Your task to perform on an android device: Open the map Image 0: 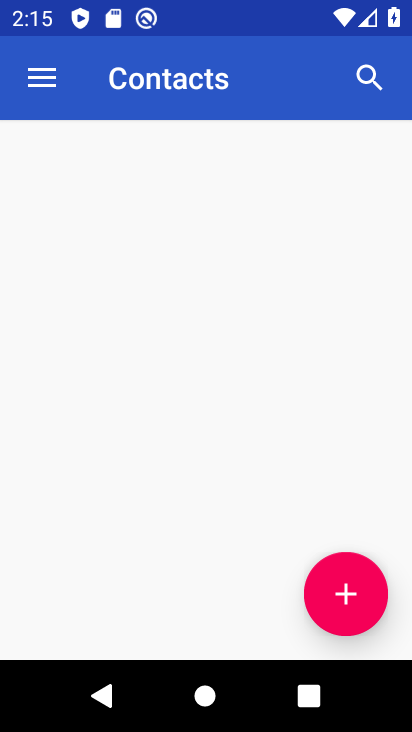
Step 0: drag from (314, 574) to (101, 154)
Your task to perform on an android device: Open the map Image 1: 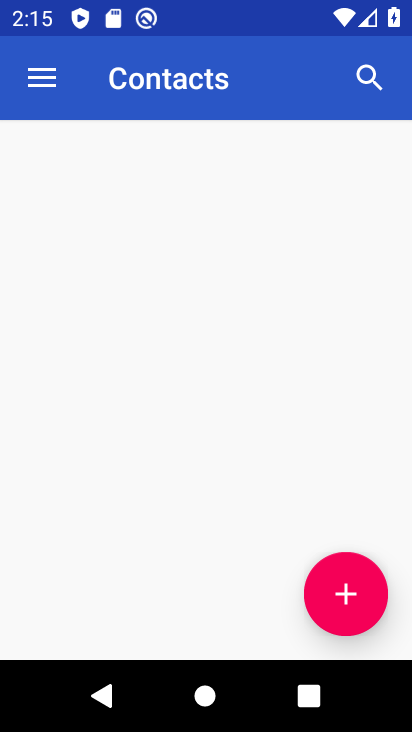
Step 1: press home button
Your task to perform on an android device: Open the map Image 2: 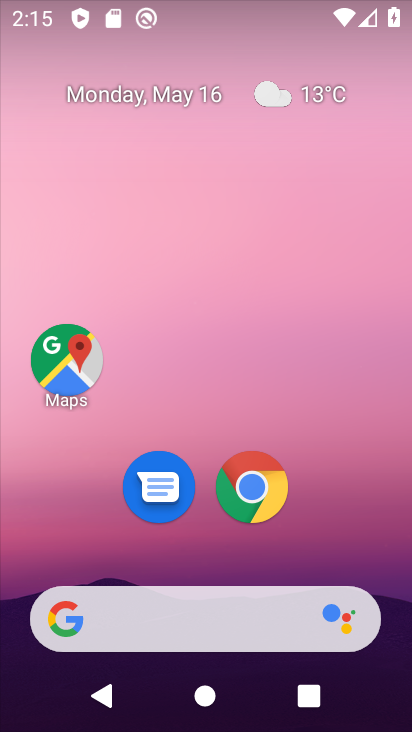
Step 2: click (56, 373)
Your task to perform on an android device: Open the map Image 3: 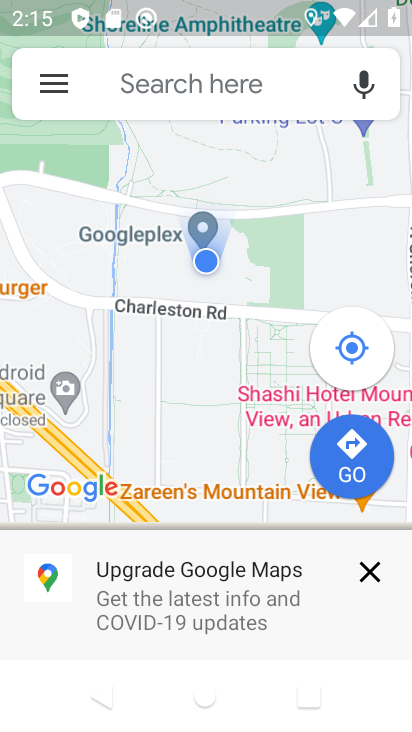
Step 3: click (371, 575)
Your task to perform on an android device: Open the map Image 4: 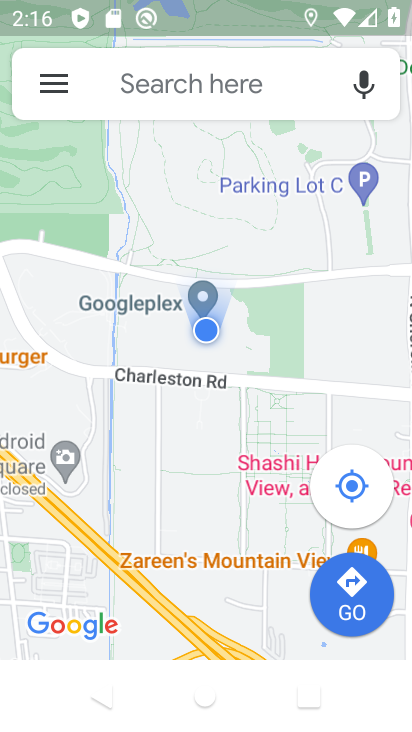
Step 4: task complete